Your task to perform on an android device: change the clock display to digital Image 0: 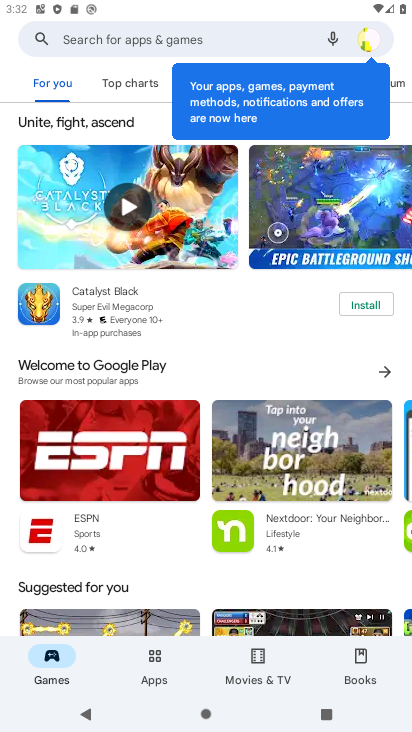
Step 0: press home button
Your task to perform on an android device: change the clock display to digital Image 1: 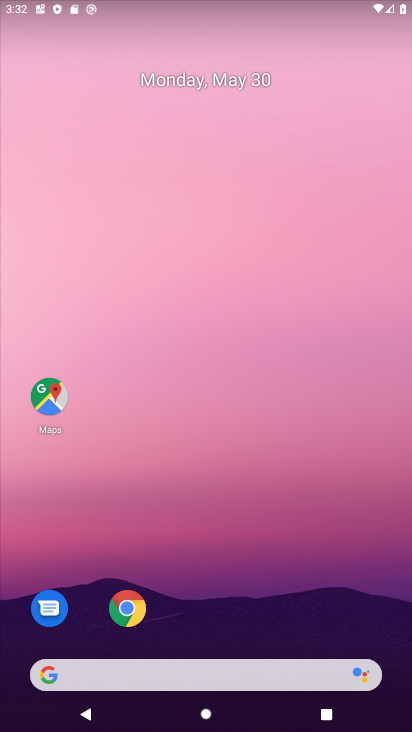
Step 1: drag from (251, 652) to (256, 169)
Your task to perform on an android device: change the clock display to digital Image 2: 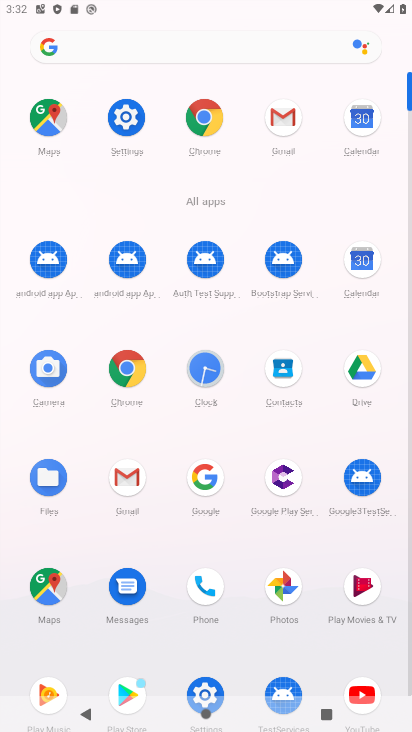
Step 2: click (194, 367)
Your task to perform on an android device: change the clock display to digital Image 3: 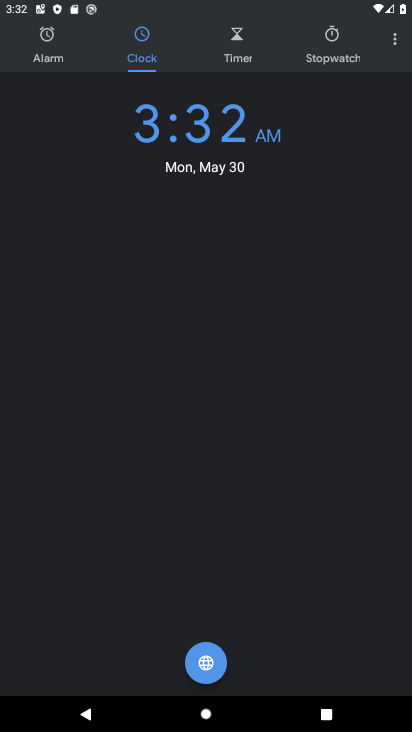
Step 3: click (393, 39)
Your task to perform on an android device: change the clock display to digital Image 4: 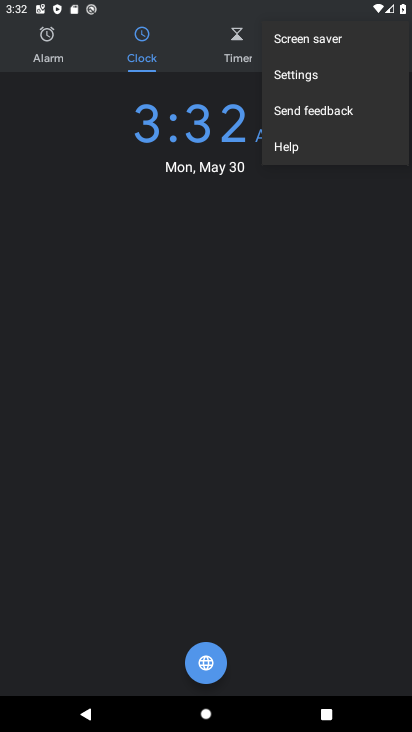
Step 4: click (297, 84)
Your task to perform on an android device: change the clock display to digital Image 5: 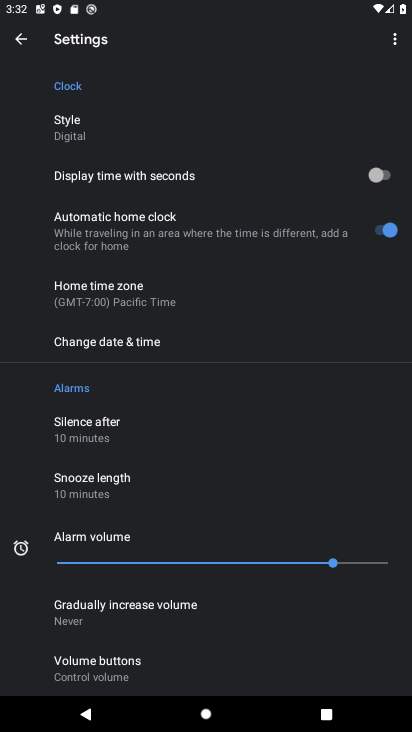
Step 5: drag from (234, 510) to (258, 204)
Your task to perform on an android device: change the clock display to digital Image 6: 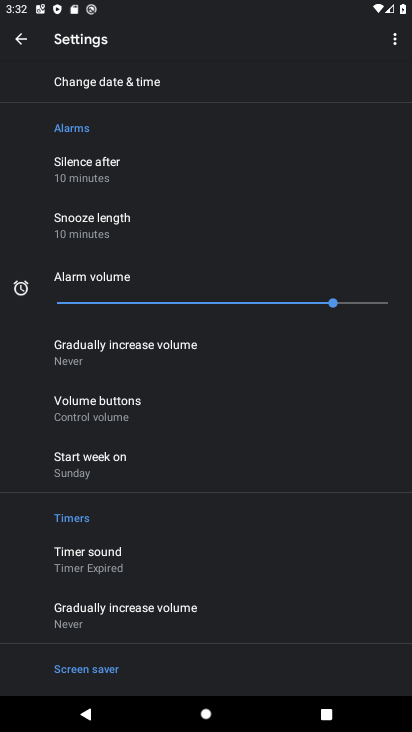
Step 6: drag from (194, 578) to (230, 311)
Your task to perform on an android device: change the clock display to digital Image 7: 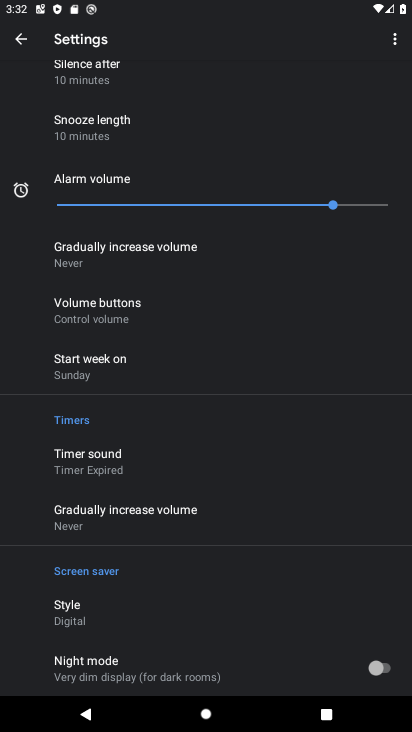
Step 7: drag from (128, 77) to (146, 514)
Your task to perform on an android device: change the clock display to digital Image 8: 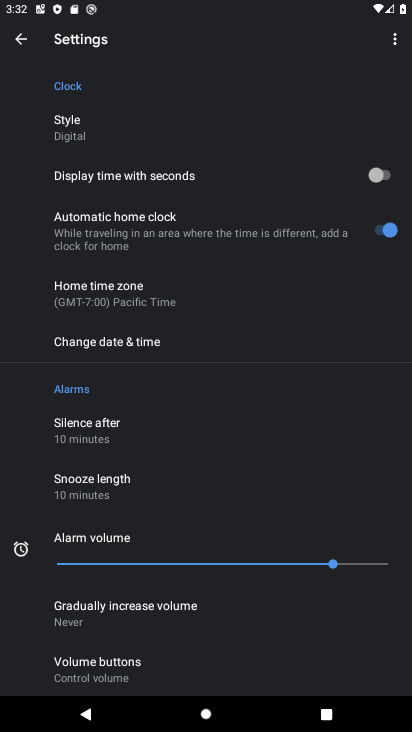
Step 8: click (98, 117)
Your task to perform on an android device: change the clock display to digital Image 9: 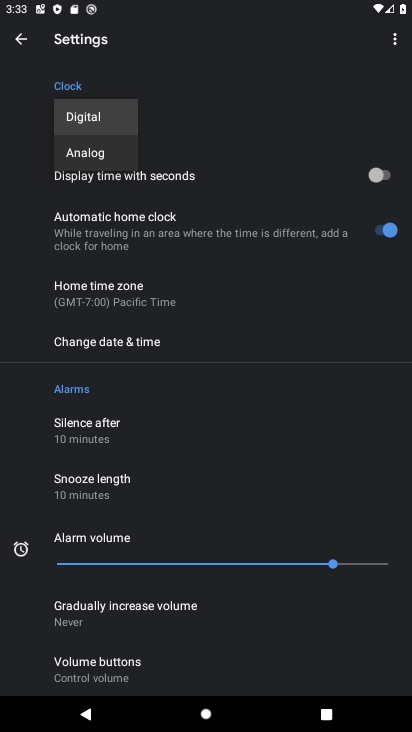
Step 9: click (95, 119)
Your task to perform on an android device: change the clock display to digital Image 10: 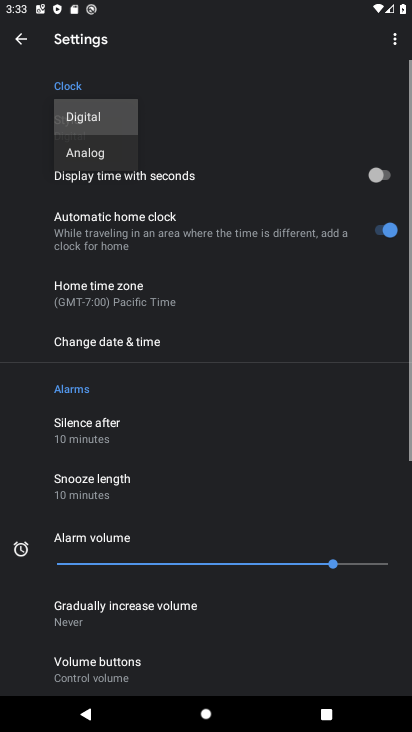
Step 10: drag from (227, 332) to (245, 447)
Your task to perform on an android device: change the clock display to digital Image 11: 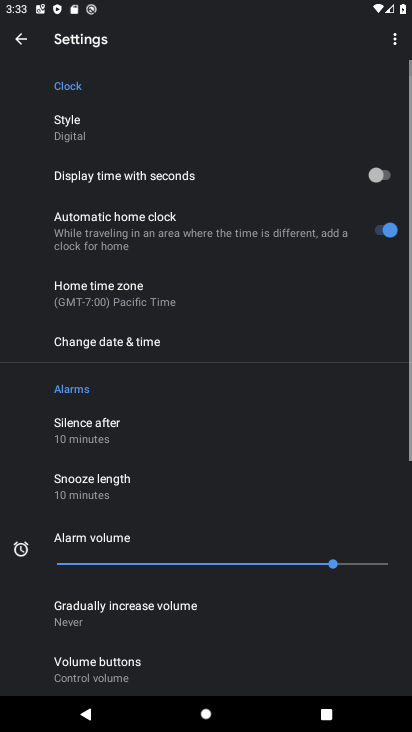
Step 11: click (243, 465)
Your task to perform on an android device: change the clock display to digital Image 12: 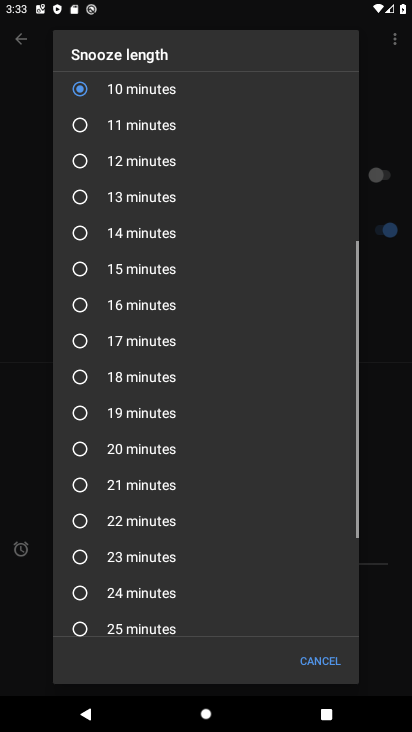
Step 12: click (90, 128)
Your task to perform on an android device: change the clock display to digital Image 13: 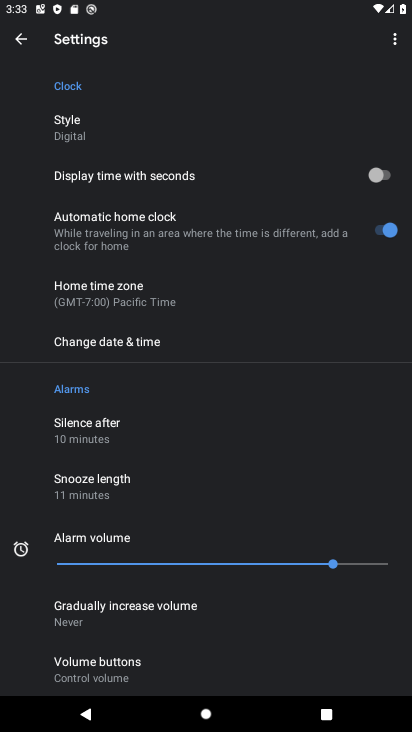
Step 13: click (84, 126)
Your task to perform on an android device: change the clock display to digital Image 14: 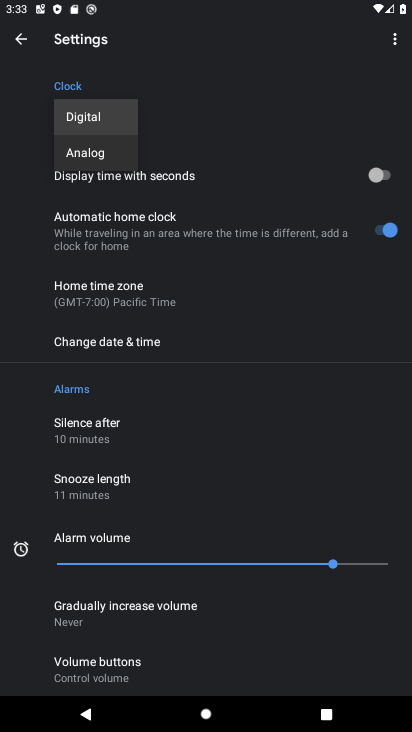
Step 14: click (102, 110)
Your task to perform on an android device: change the clock display to digital Image 15: 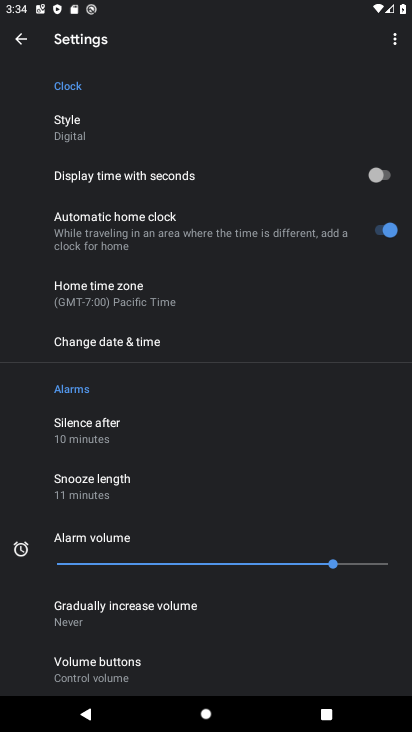
Step 15: task complete